Your task to perform on an android device: Search for logitech g502 on bestbuy, select the first entry, add it to the cart, then select checkout. Image 0: 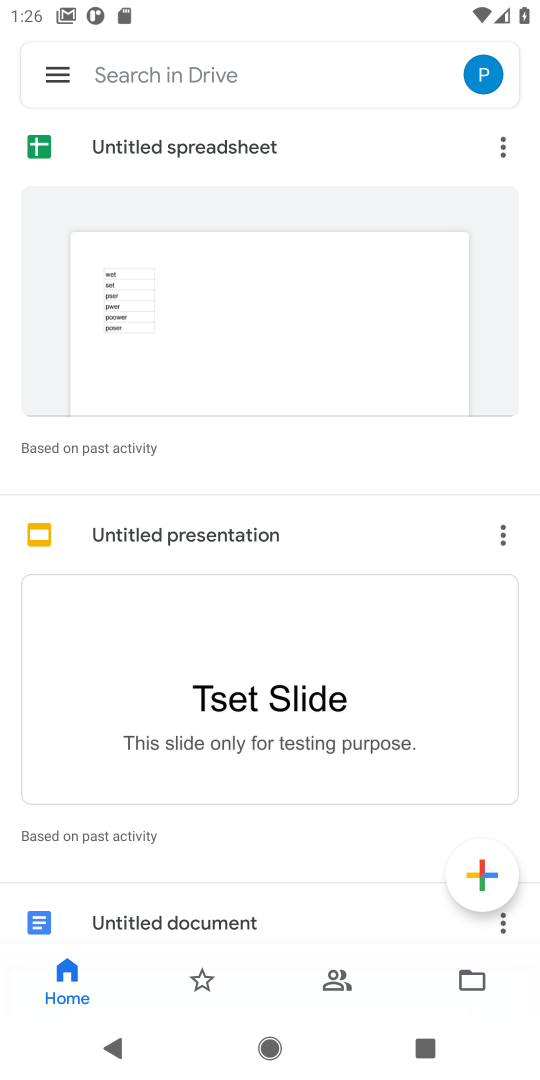
Step 0: press home button
Your task to perform on an android device: Search for logitech g502 on bestbuy, select the first entry, add it to the cart, then select checkout. Image 1: 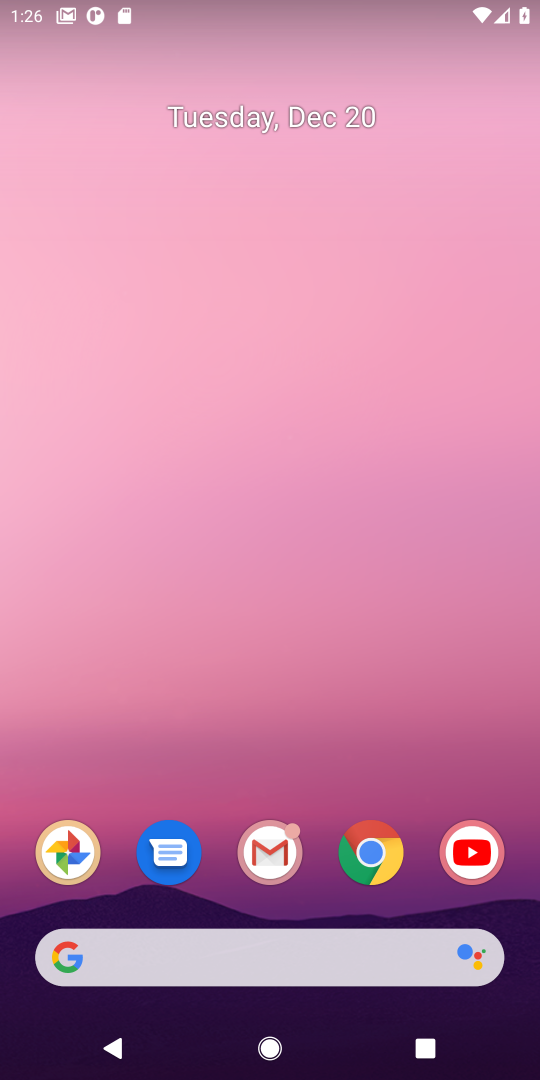
Step 1: click (379, 855)
Your task to perform on an android device: Search for logitech g502 on bestbuy, select the first entry, add it to the cart, then select checkout. Image 2: 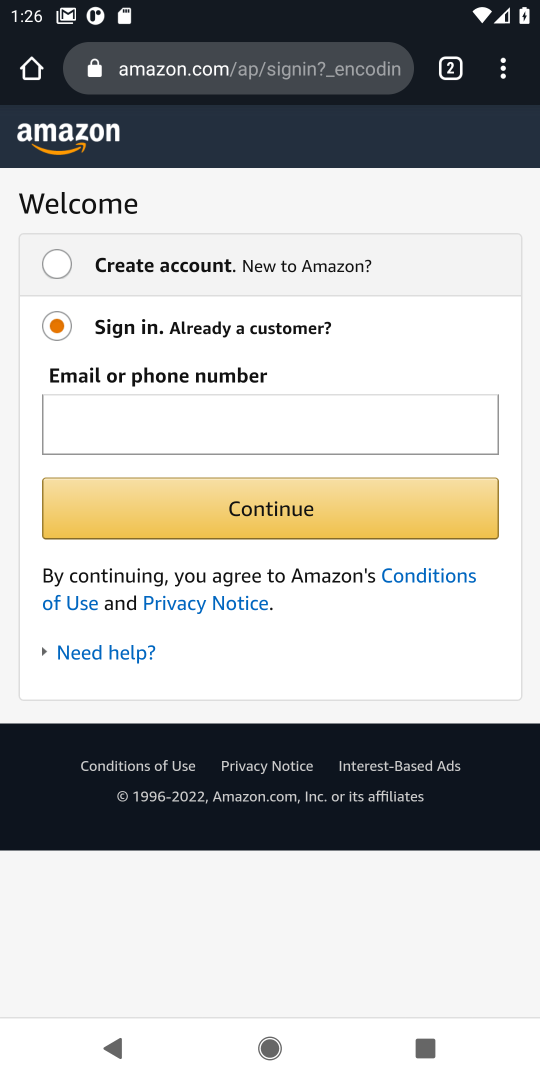
Step 2: click (213, 75)
Your task to perform on an android device: Search for logitech g502 on bestbuy, select the first entry, add it to the cart, then select checkout. Image 3: 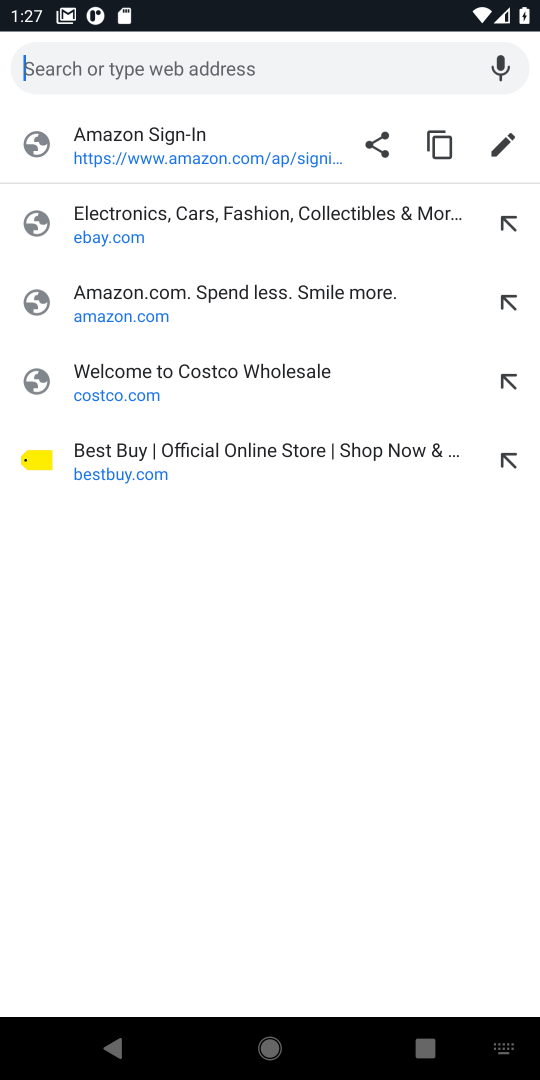
Step 3: click (101, 455)
Your task to perform on an android device: Search for logitech g502 on bestbuy, select the first entry, add it to the cart, then select checkout. Image 4: 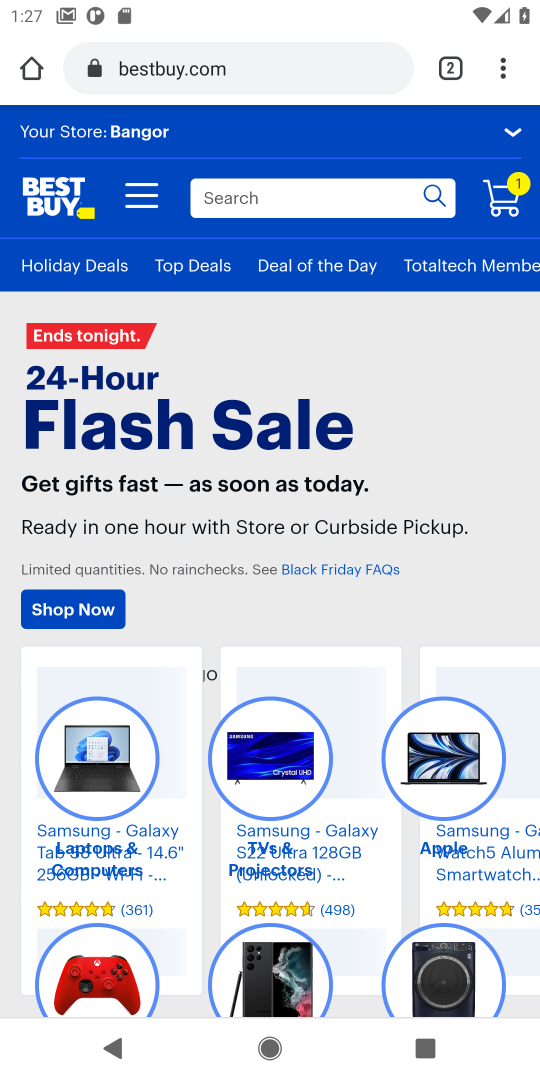
Step 4: click (250, 203)
Your task to perform on an android device: Search for logitech g502 on bestbuy, select the first entry, add it to the cart, then select checkout. Image 5: 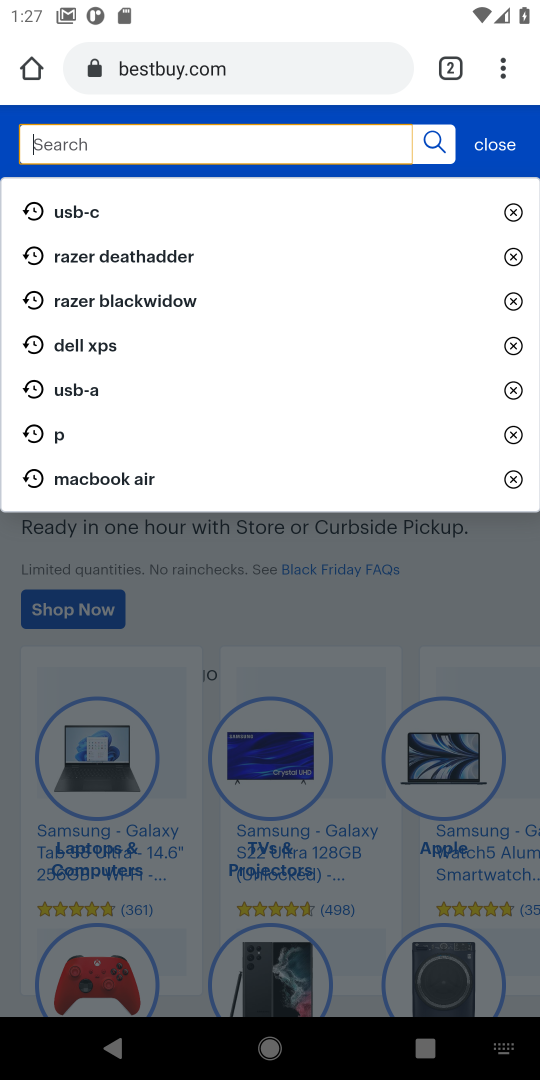
Step 5: type " logitech g502"
Your task to perform on an android device: Search for logitech g502 on bestbuy, select the first entry, add it to the cart, then select checkout. Image 6: 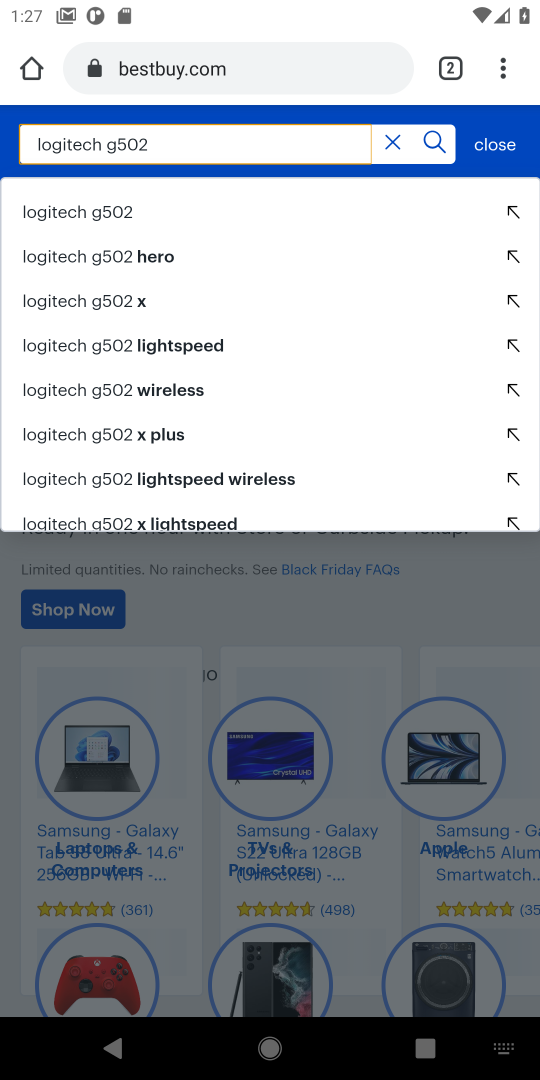
Step 6: click (100, 212)
Your task to perform on an android device: Search for logitech g502 on bestbuy, select the first entry, add it to the cart, then select checkout. Image 7: 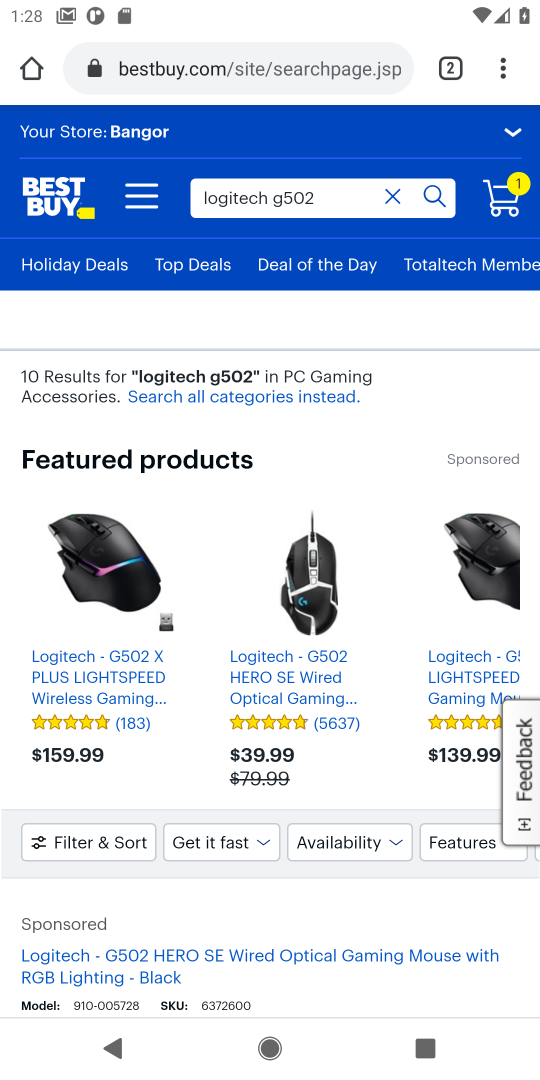
Step 7: drag from (205, 717) to (221, 454)
Your task to perform on an android device: Search for logitech g502 on bestbuy, select the first entry, add it to the cart, then select checkout. Image 8: 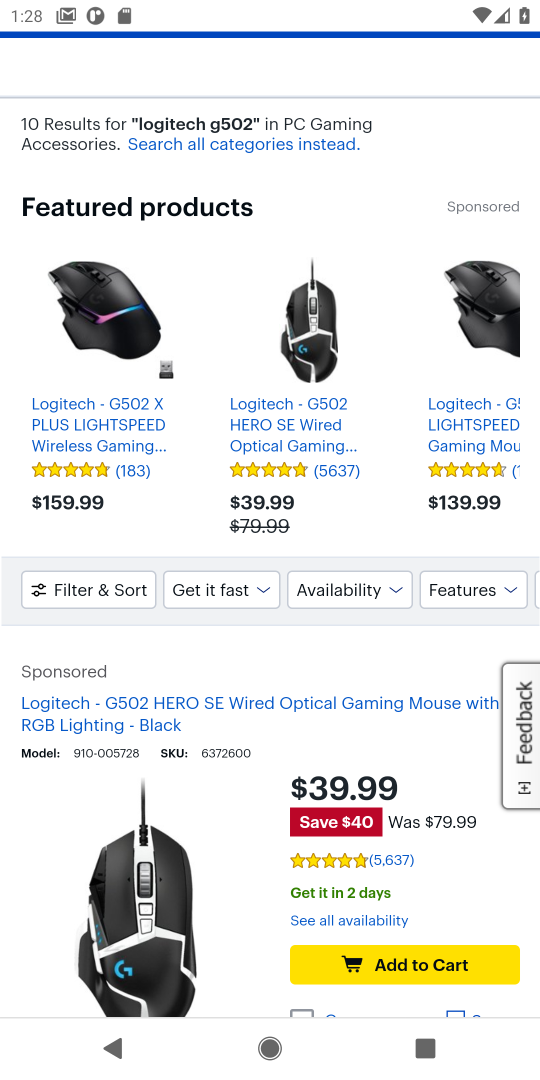
Step 8: click (403, 959)
Your task to perform on an android device: Search for logitech g502 on bestbuy, select the first entry, add it to the cart, then select checkout. Image 9: 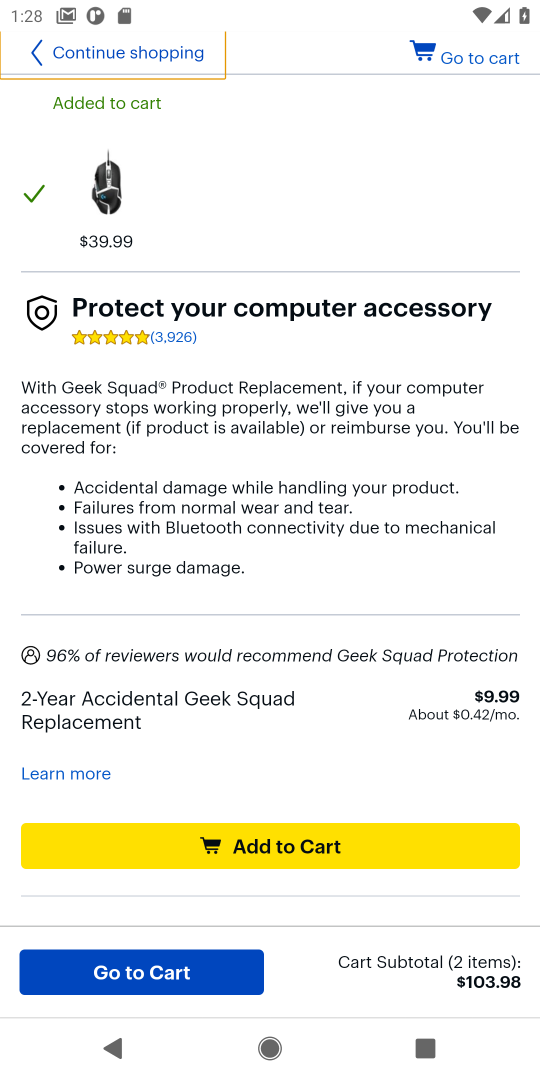
Step 9: click (473, 57)
Your task to perform on an android device: Search for logitech g502 on bestbuy, select the first entry, add it to the cart, then select checkout. Image 10: 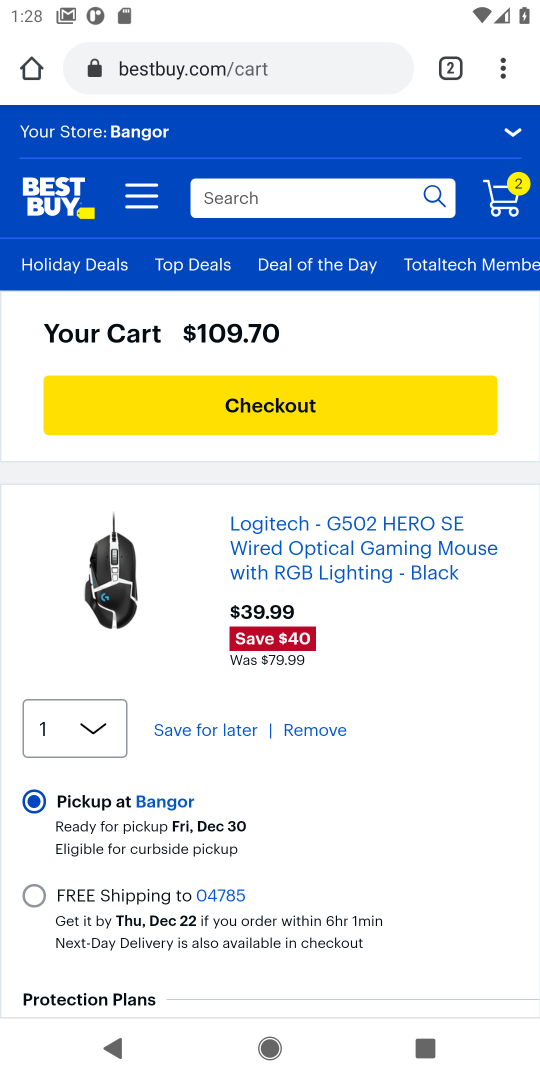
Step 10: click (259, 411)
Your task to perform on an android device: Search for logitech g502 on bestbuy, select the first entry, add it to the cart, then select checkout. Image 11: 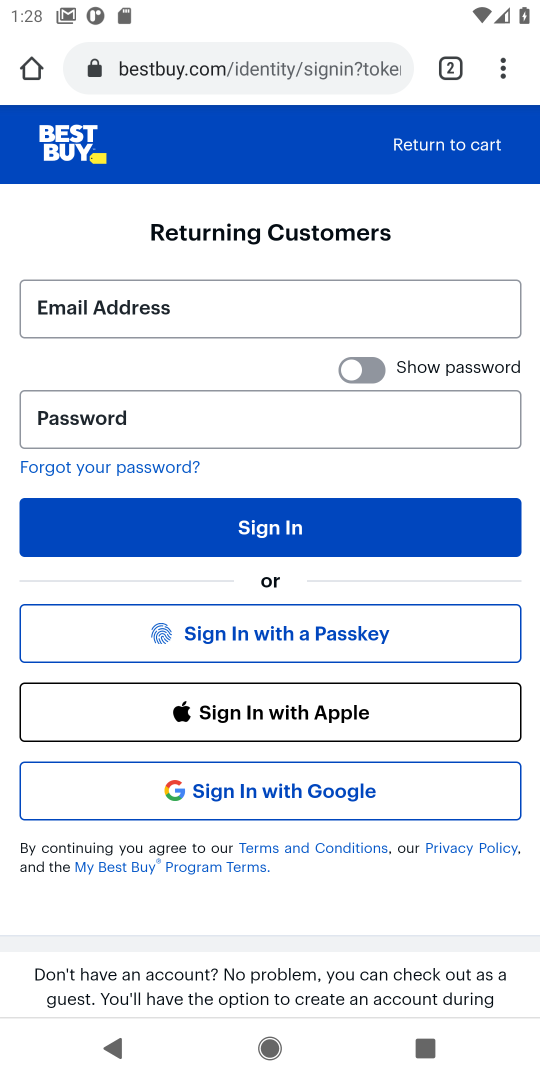
Step 11: task complete